Your task to perform on an android device: Show me popular games on the Play Store Image 0: 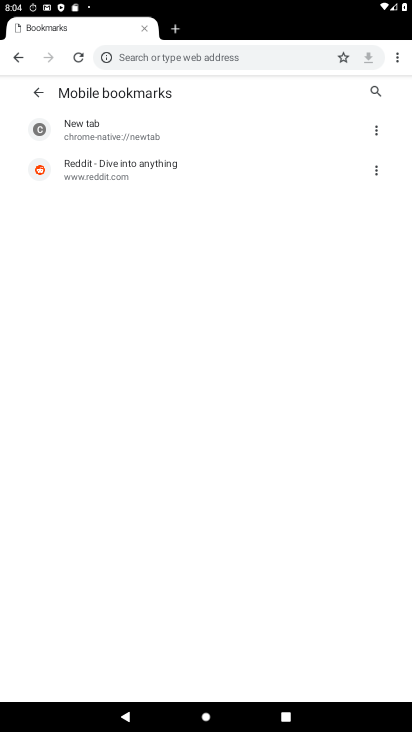
Step 0: press home button
Your task to perform on an android device: Show me popular games on the Play Store Image 1: 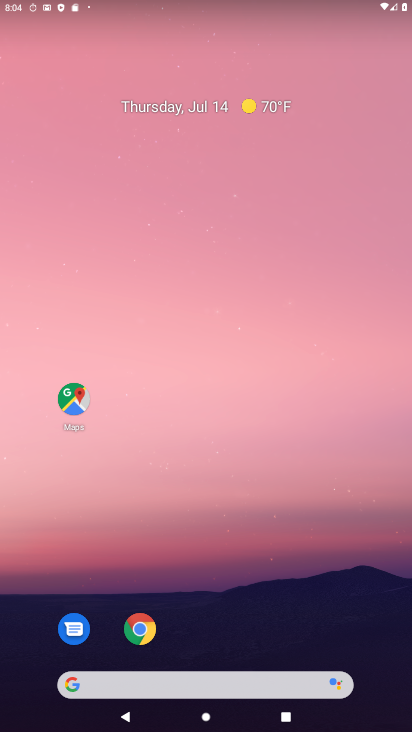
Step 1: drag from (273, 516) to (255, 24)
Your task to perform on an android device: Show me popular games on the Play Store Image 2: 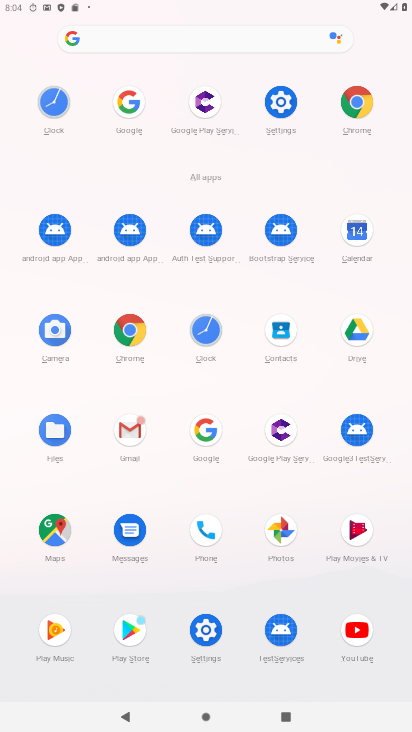
Step 2: click (114, 628)
Your task to perform on an android device: Show me popular games on the Play Store Image 3: 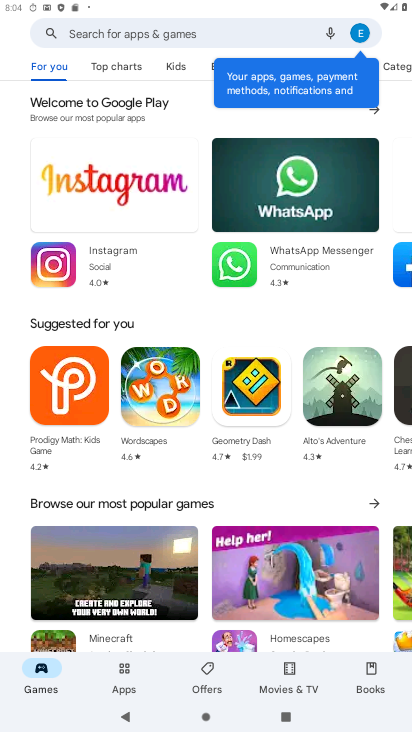
Step 3: click (155, 28)
Your task to perform on an android device: Show me popular games on the Play Store Image 4: 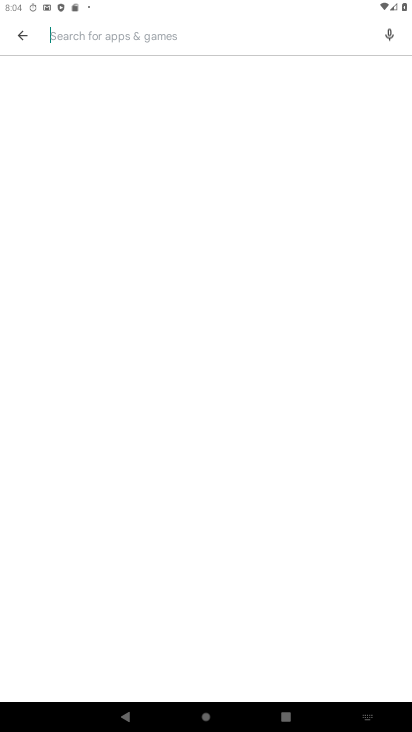
Step 4: type "popular games"
Your task to perform on an android device: Show me popular games on the Play Store Image 5: 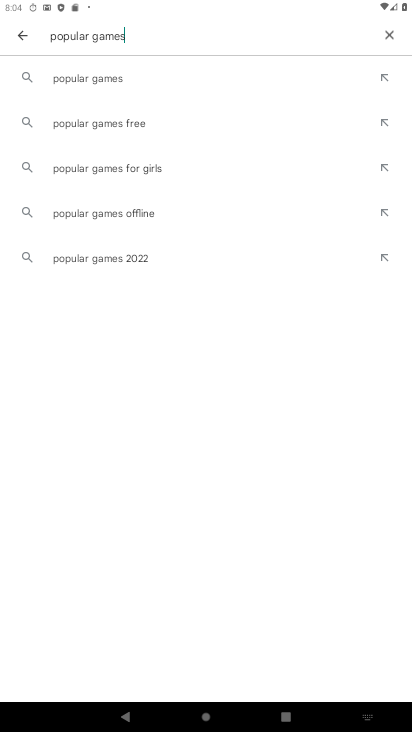
Step 5: click (75, 78)
Your task to perform on an android device: Show me popular games on the Play Store Image 6: 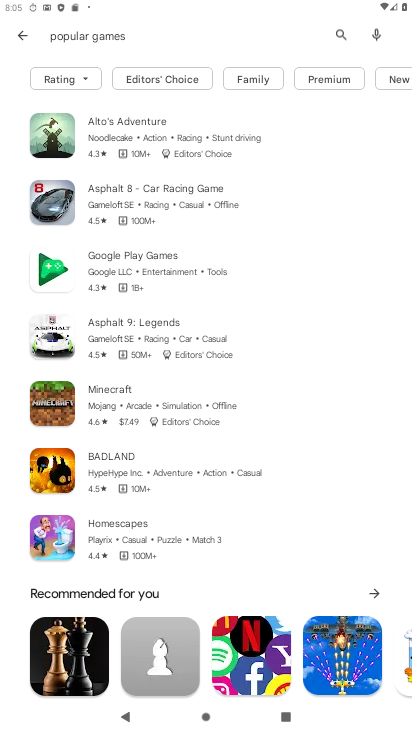
Step 6: task complete